Your task to perform on an android device: Go to accessibility settings Image 0: 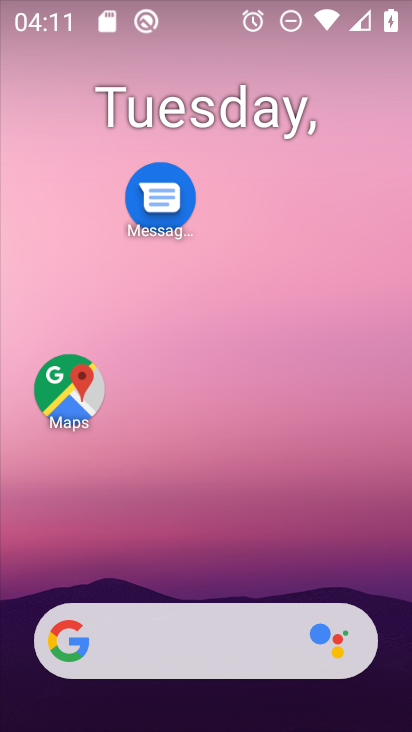
Step 0: drag from (221, 577) to (245, 188)
Your task to perform on an android device: Go to accessibility settings Image 1: 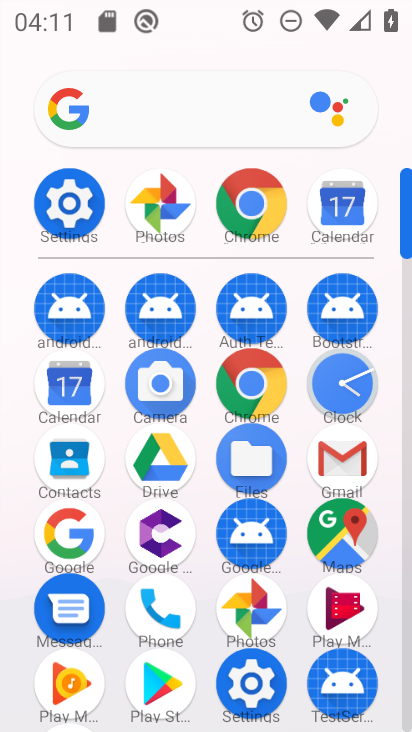
Step 1: click (81, 219)
Your task to perform on an android device: Go to accessibility settings Image 2: 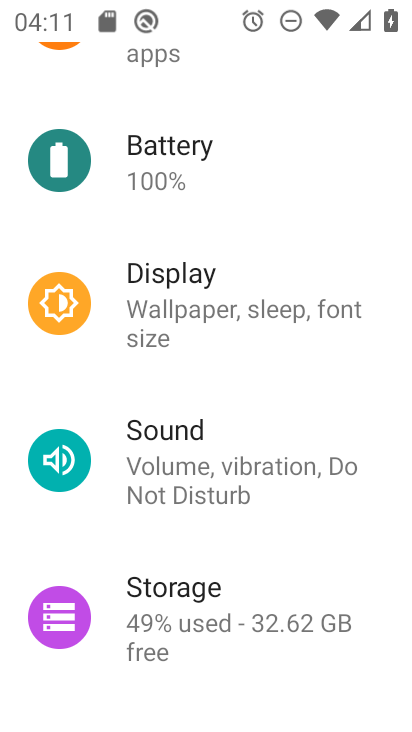
Step 2: drag from (228, 617) to (234, 278)
Your task to perform on an android device: Go to accessibility settings Image 3: 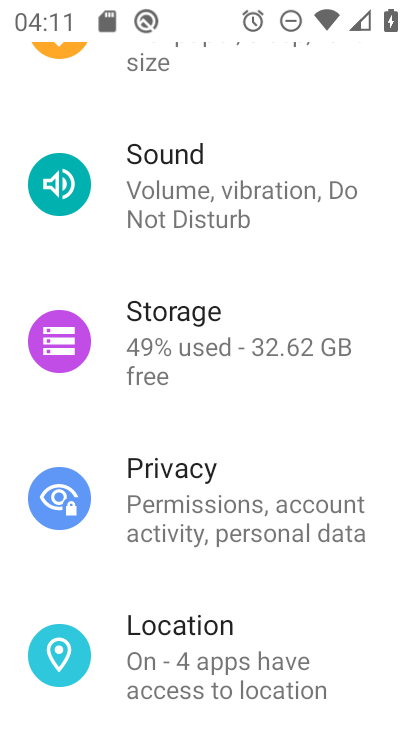
Step 3: drag from (235, 624) to (248, 300)
Your task to perform on an android device: Go to accessibility settings Image 4: 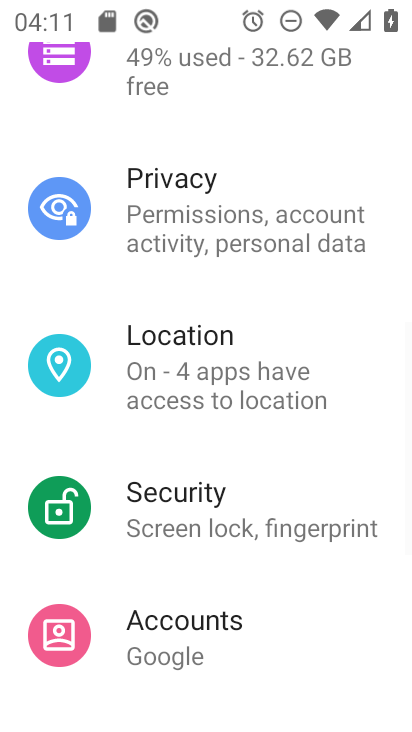
Step 4: drag from (214, 556) to (219, 304)
Your task to perform on an android device: Go to accessibility settings Image 5: 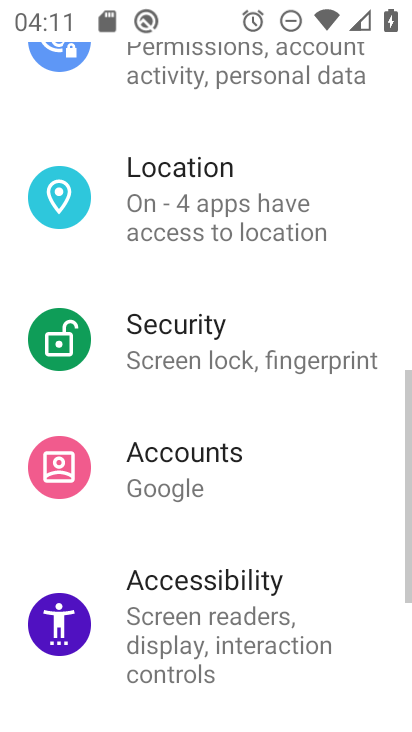
Step 5: click (226, 597)
Your task to perform on an android device: Go to accessibility settings Image 6: 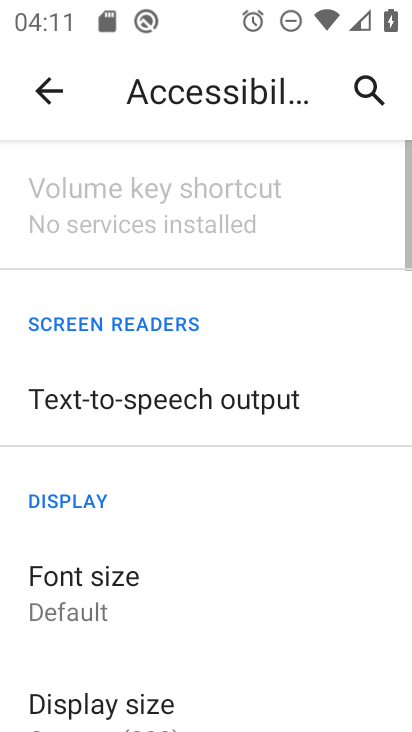
Step 6: task complete